Your task to perform on an android device: Is it going to rain tomorrow? Image 0: 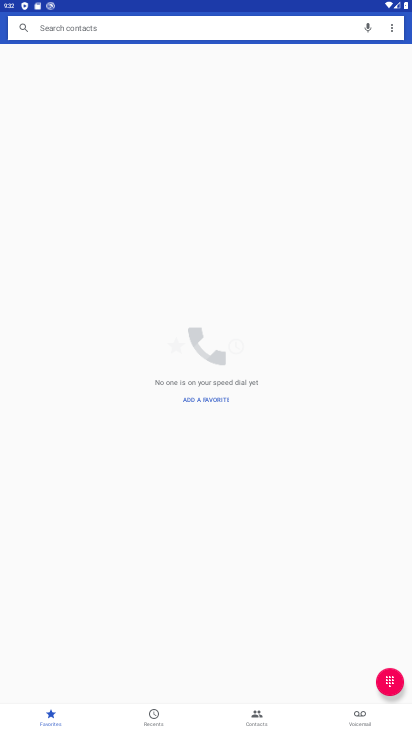
Step 0: press home button
Your task to perform on an android device: Is it going to rain tomorrow? Image 1: 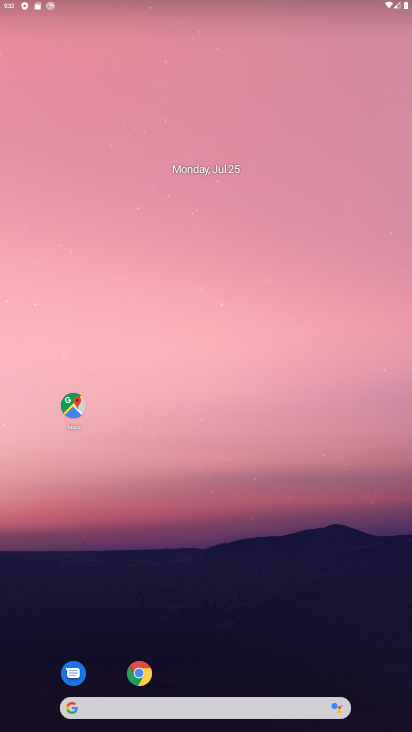
Step 1: drag from (296, 614) to (314, 97)
Your task to perform on an android device: Is it going to rain tomorrow? Image 2: 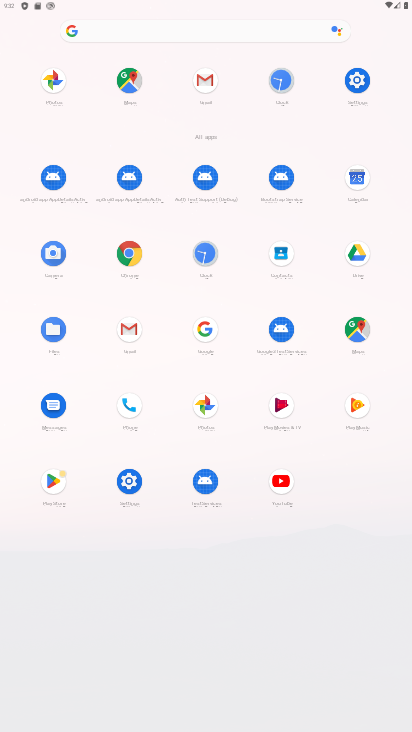
Step 2: click (129, 252)
Your task to perform on an android device: Is it going to rain tomorrow? Image 3: 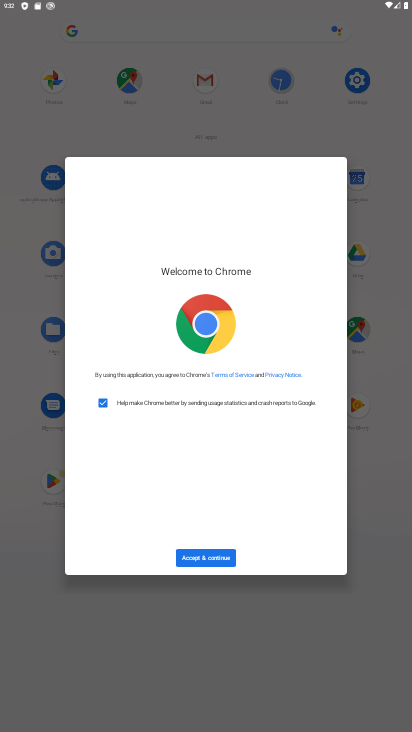
Step 3: click (208, 548)
Your task to perform on an android device: Is it going to rain tomorrow? Image 4: 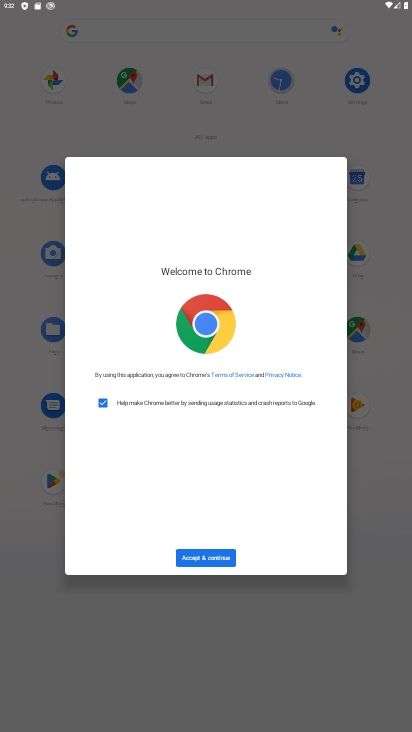
Step 4: click (203, 544)
Your task to perform on an android device: Is it going to rain tomorrow? Image 5: 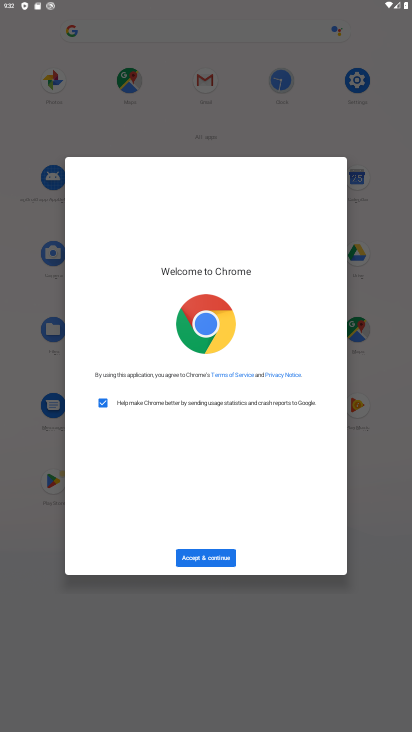
Step 5: click (215, 549)
Your task to perform on an android device: Is it going to rain tomorrow? Image 6: 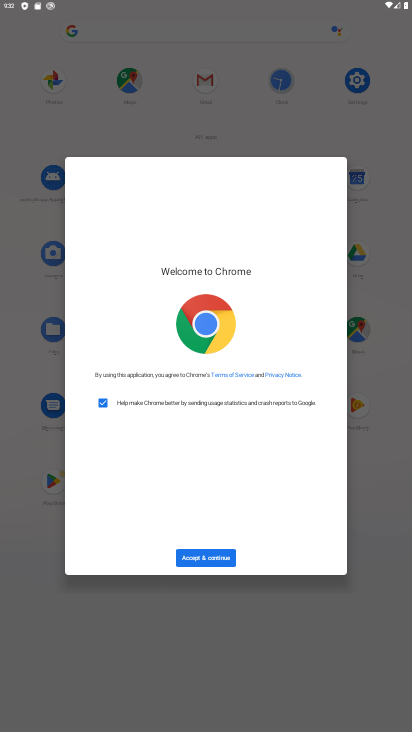
Step 6: click (222, 555)
Your task to perform on an android device: Is it going to rain tomorrow? Image 7: 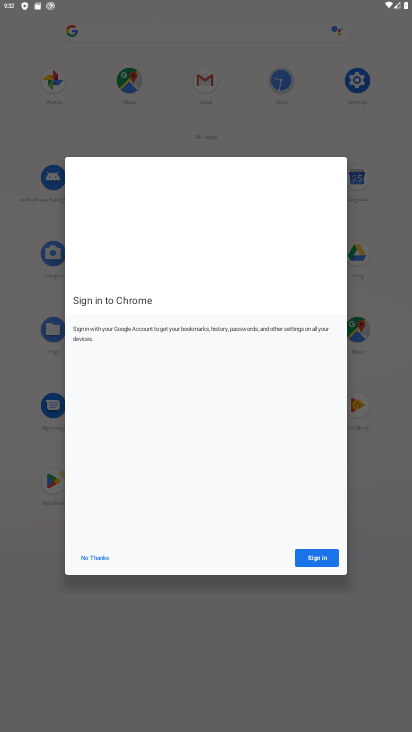
Step 7: click (328, 554)
Your task to perform on an android device: Is it going to rain tomorrow? Image 8: 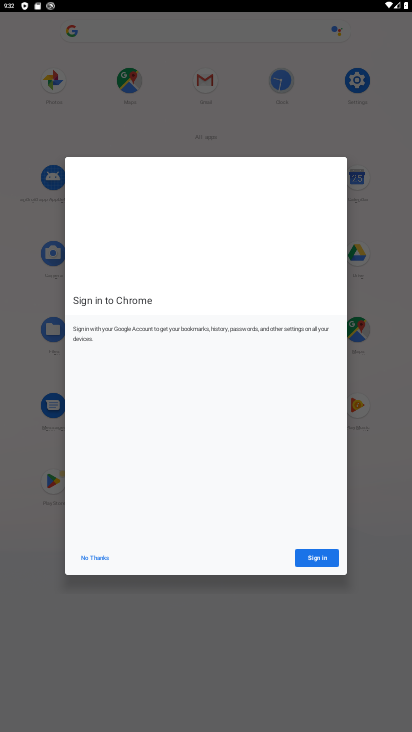
Step 8: click (328, 554)
Your task to perform on an android device: Is it going to rain tomorrow? Image 9: 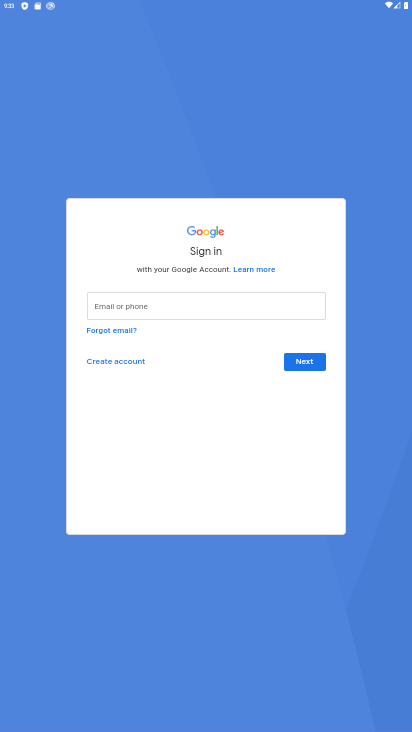
Step 9: task complete